Your task to perform on an android device: search for starred emails in the gmail app Image 0: 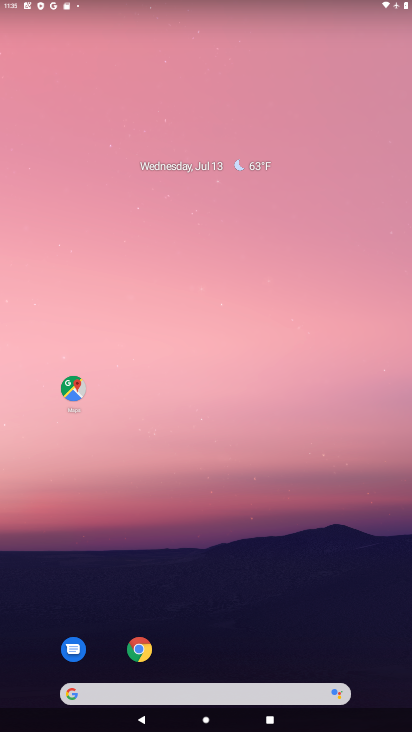
Step 0: drag from (217, 612) to (267, 227)
Your task to perform on an android device: search for starred emails in the gmail app Image 1: 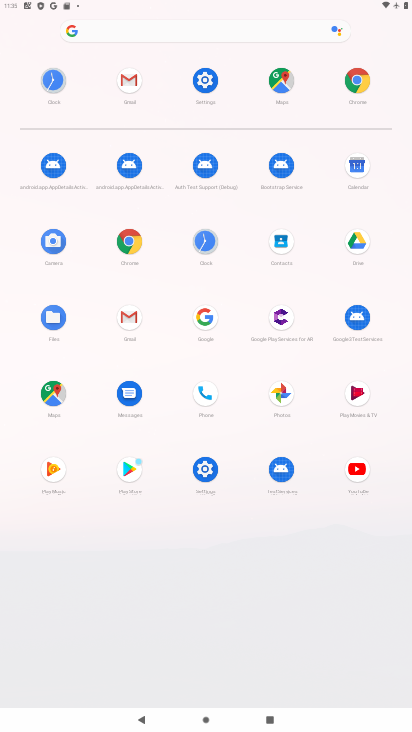
Step 1: click (118, 310)
Your task to perform on an android device: search for starred emails in the gmail app Image 2: 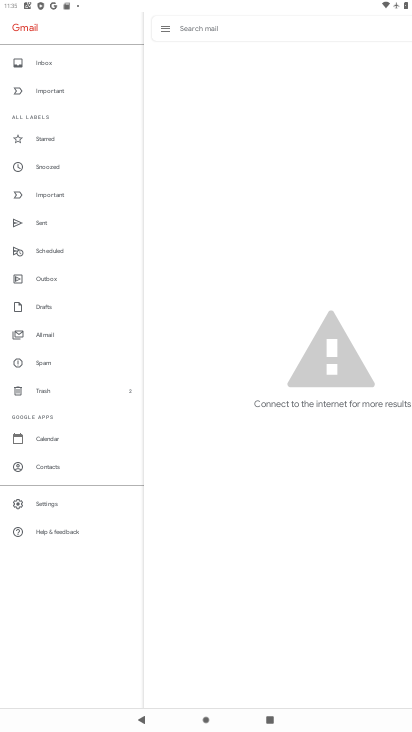
Step 2: click (61, 163)
Your task to perform on an android device: search for starred emails in the gmail app Image 3: 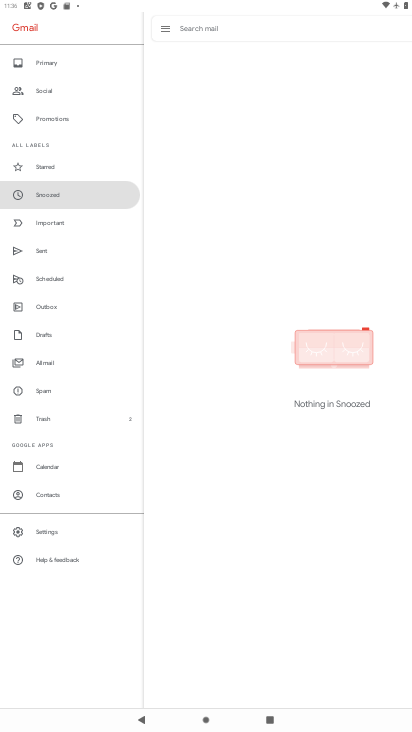
Step 3: task complete